Your task to perform on an android device: Open Maps and search for coffee Image 0: 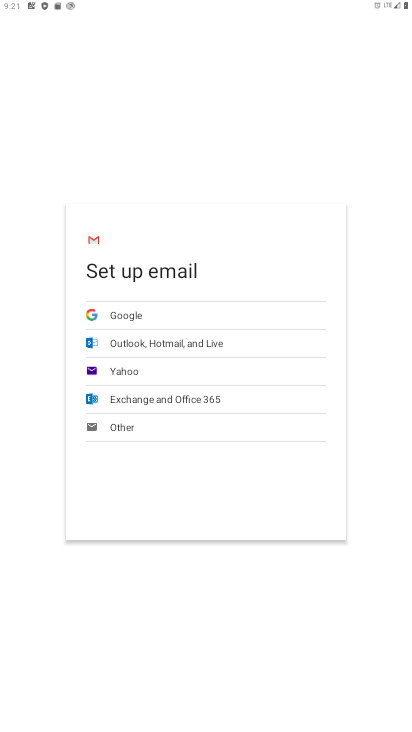
Step 0: press home button
Your task to perform on an android device: Open Maps and search for coffee Image 1: 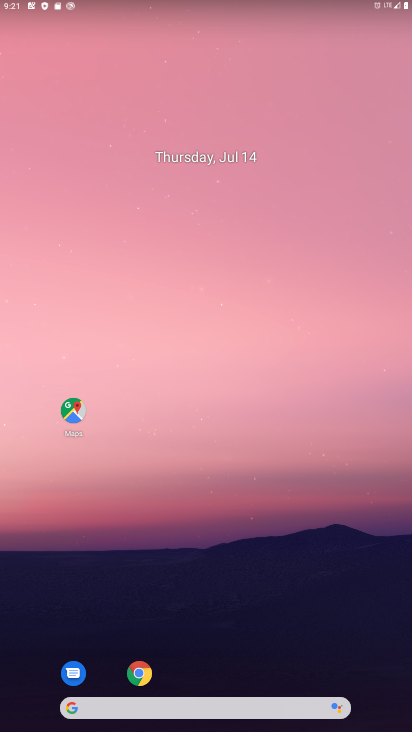
Step 1: click (74, 410)
Your task to perform on an android device: Open Maps and search for coffee Image 2: 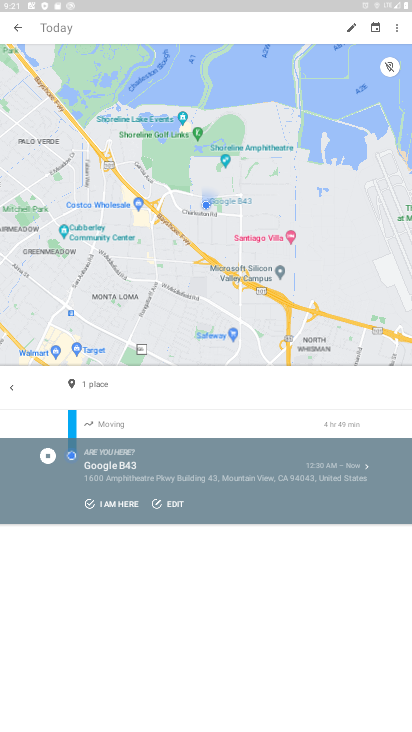
Step 2: press back button
Your task to perform on an android device: Open Maps and search for coffee Image 3: 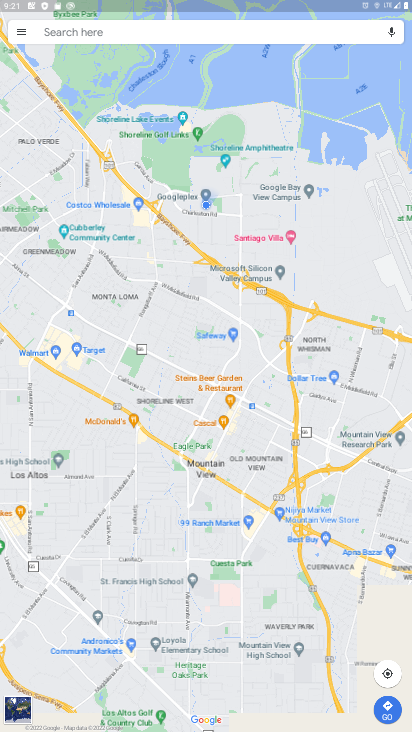
Step 3: click (211, 30)
Your task to perform on an android device: Open Maps and search for coffee Image 4: 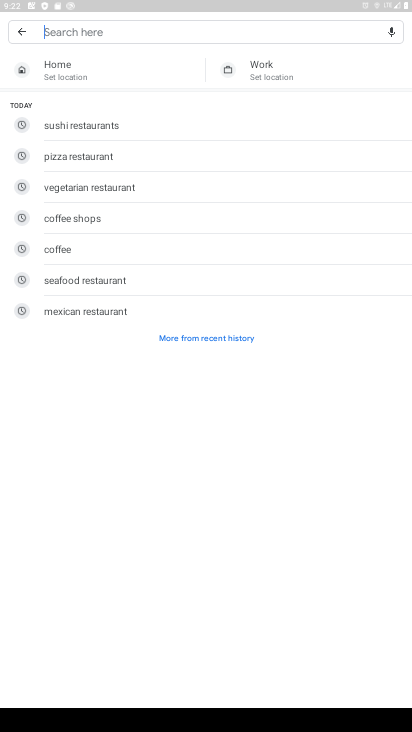
Step 4: type "coffee"
Your task to perform on an android device: Open Maps and search for coffee Image 5: 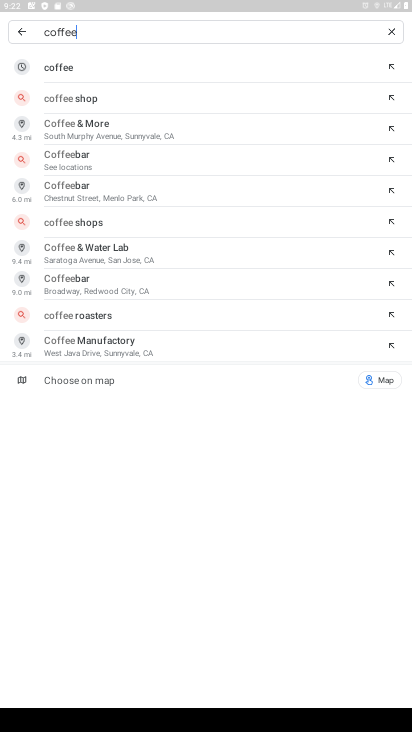
Step 5: click (66, 63)
Your task to perform on an android device: Open Maps and search for coffee Image 6: 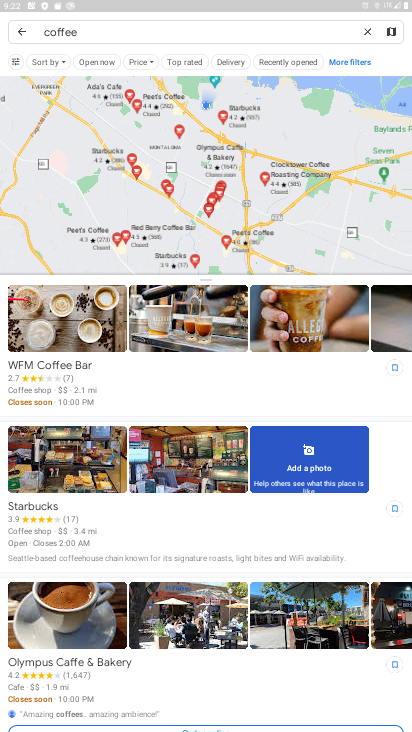
Step 6: task complete